Your task to perform on an android device: open app "McDonald's" (install if not already installed) Image 0: 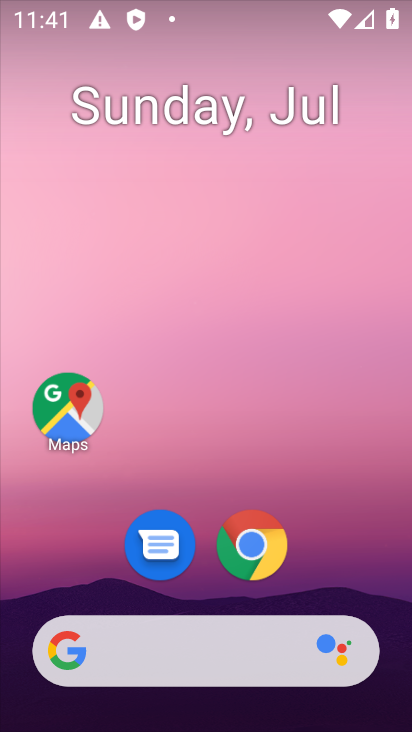
Step 0: drag from (156, 637) to (176, 296)
Your task to perform on an android device: open app "McDonald's" (install if not already installed) Image 1: 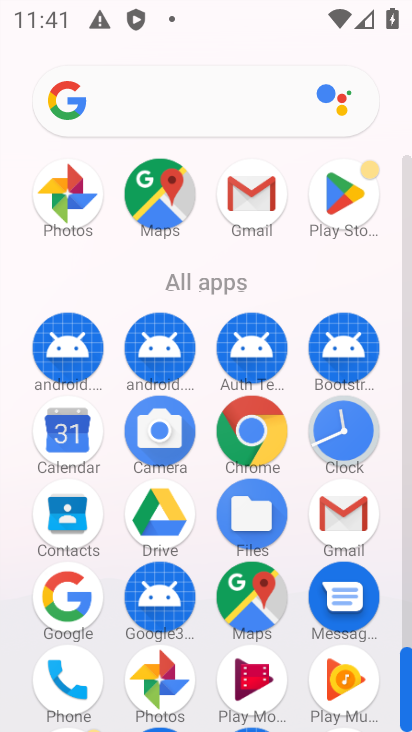
Step 1: click (326, 218)
Your task to perform on an android device: open app "McDonald's" (install if not already installed) Image 2: 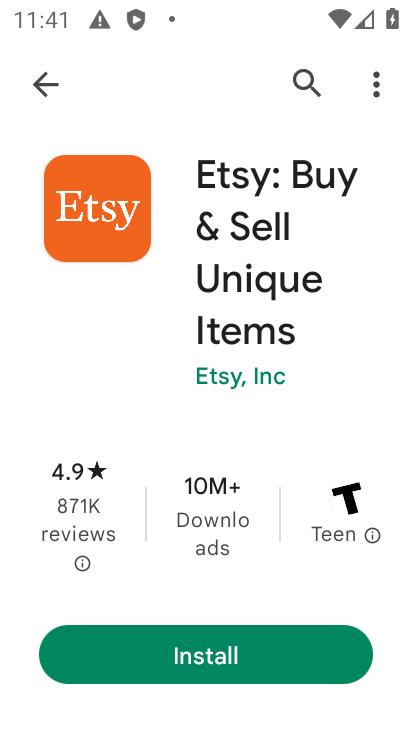
Step 2: click (31, 85)
Your task to perform on an android device: open app "McDonald's" (install if not already installed) Image 3: 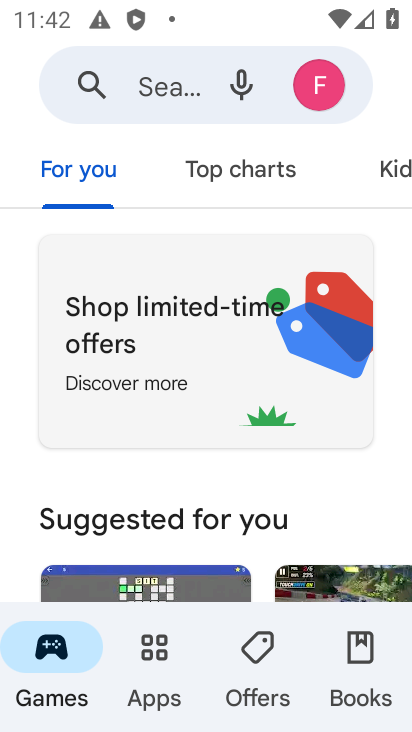
Step 3: click (171, 78)
Your task to perform on an android device: open app "McDonald's" (install if not already installed) Image 4: 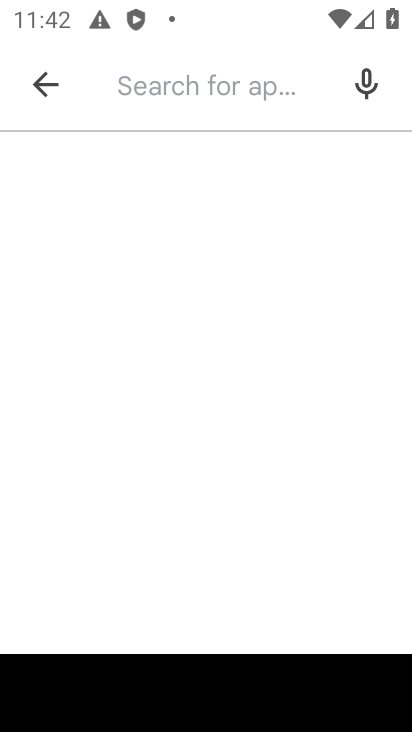
Step 4: type "McDonald's"
Your task to perform on an android device: open app "McDonald's" (install if not already installed) Image 5: 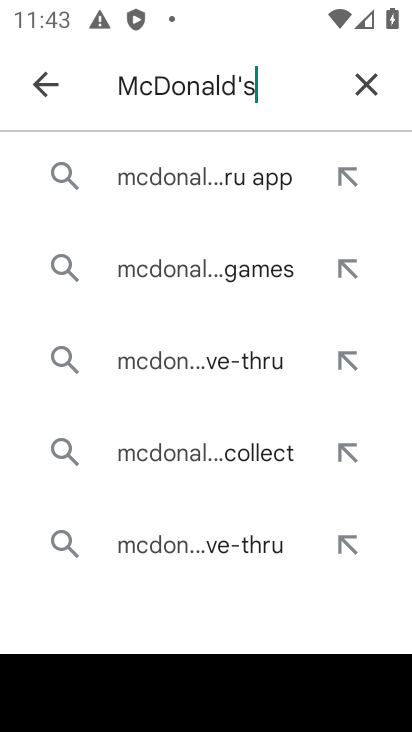
Step 5: click (284, 183)
Your task to perform on an android device: open app "McDonald's" (install if not already installed) Image 6: 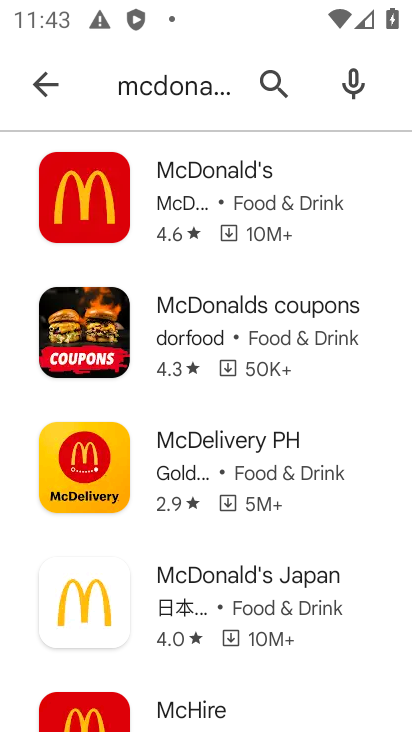
Step 6: click (223, 184)
Your task to perform on an android device: open app "McDonald's" (install if not already installed) Image 7: 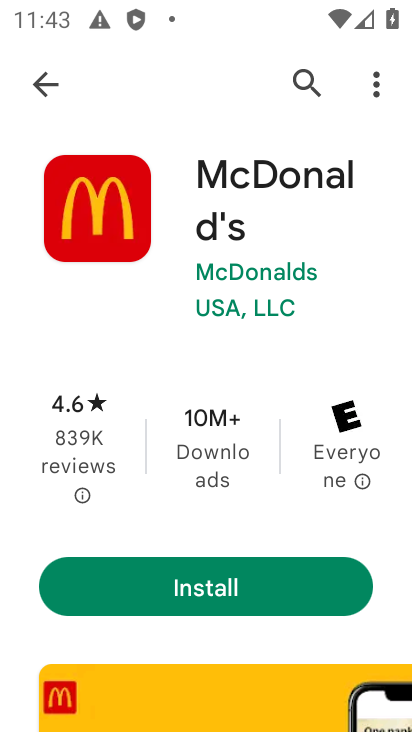
Step 7: click (213, 594)
Your task to perform on an android device: open app "McDonald's" (install if not already installed) Image 8: 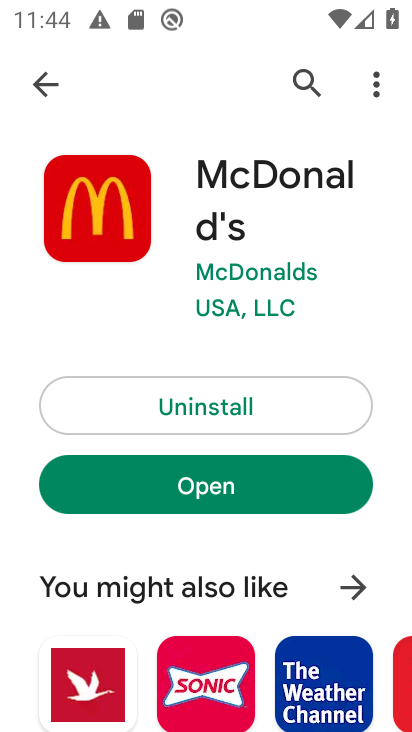
Step 8: task complete